Your task to perform on an android device: Open Yahoo.com Image 0: 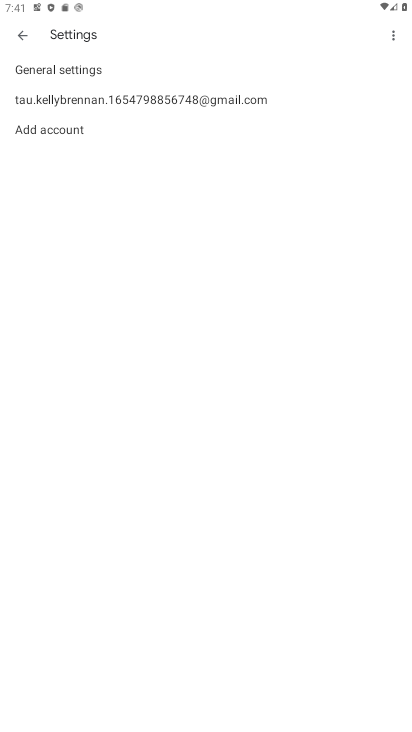
Step 0: press home button
Your task to perform on an android device: Open Yahoo.com Image 1: 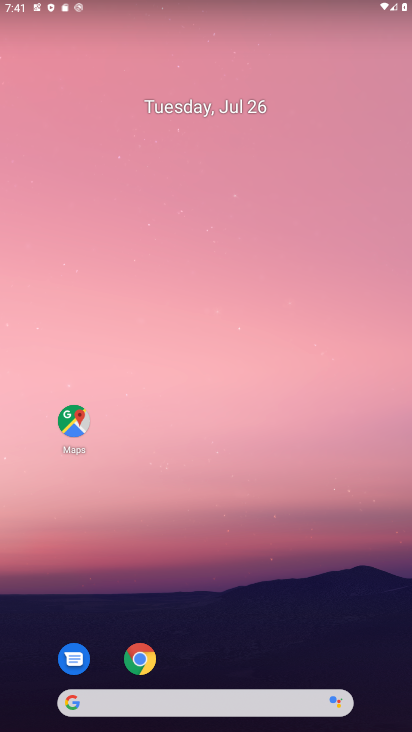
Step 1: click (144, 664)
Your task to perform on an android device: Open Yahoo.com Image 2: 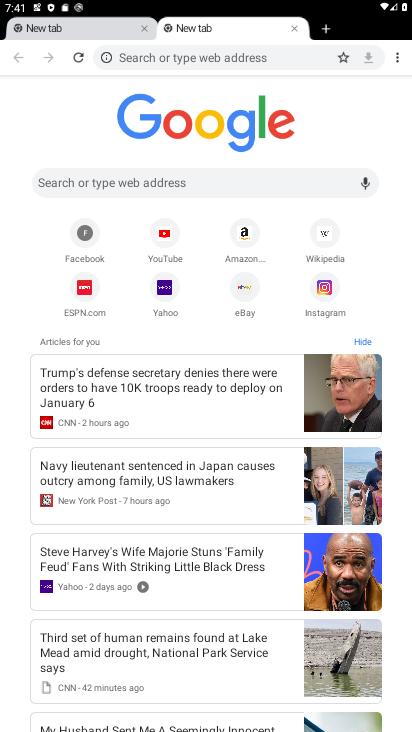
Step 2: click (167, 288)
Your task to perform on an android device: Open Yahoo.com Image 3: 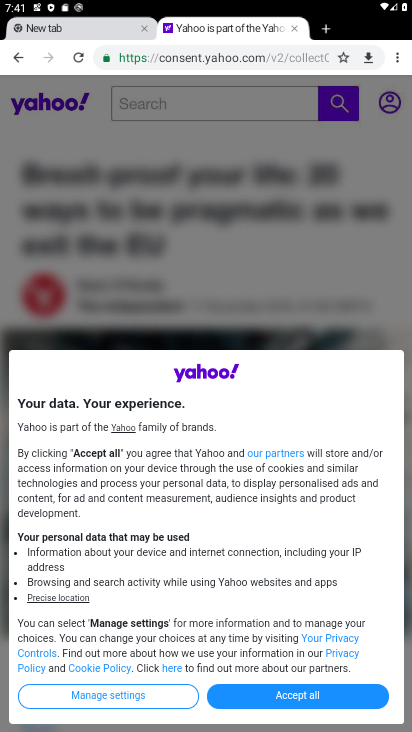
Step 3: task complete